Your task to perform on an android device: toggle sleep mode Image 0: 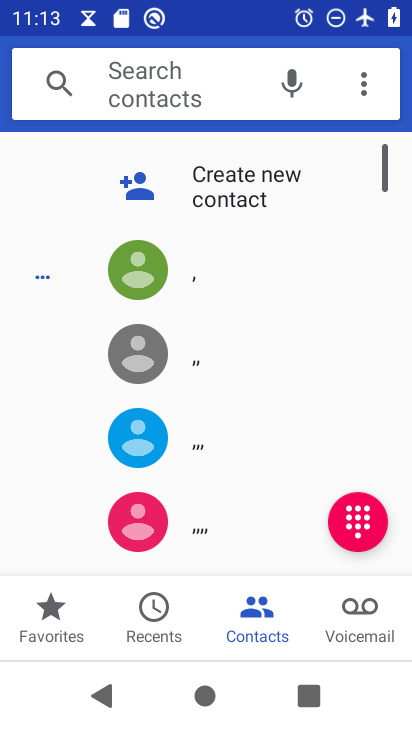
Step 0: press home button
Your task to perform on an android device: toggle sleep mode Image 1: 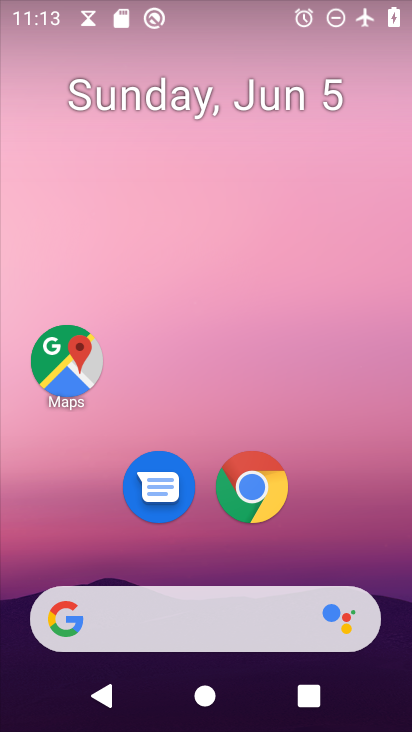
Step 1: drag from (228, 546) to (238, 263)
Your task to perform on an android device: toggle sleep mode Image 2: 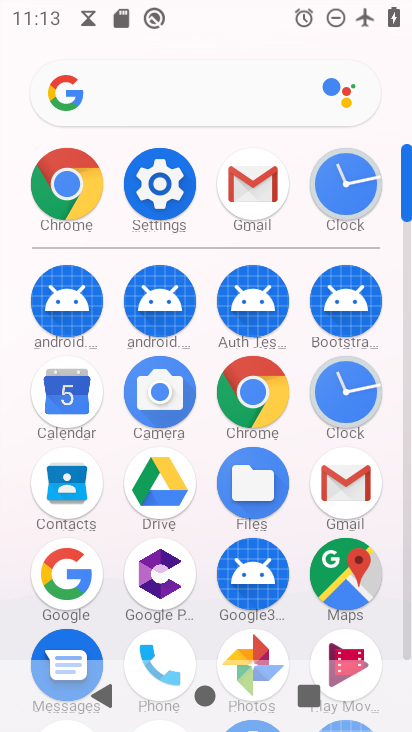
Step 2: click (167, 182)
Your task to perform on an android device: toggle sleep mode Image 3: 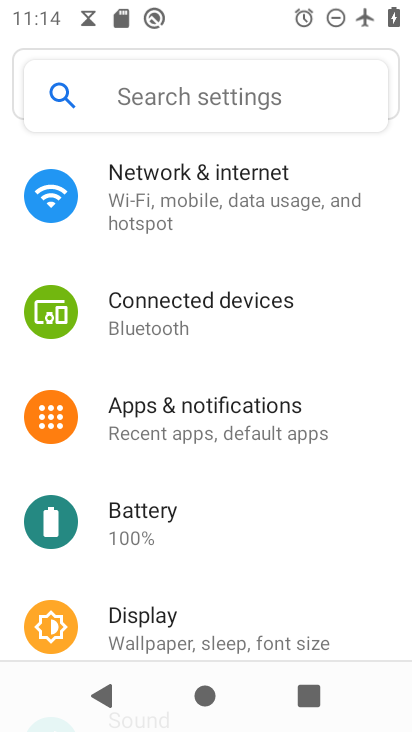
Step 3: task complete